Your task to perform on an android device: check battery use Image 0: 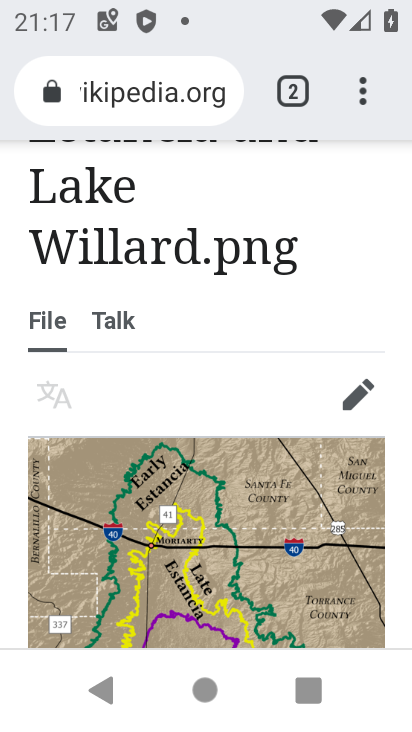
Step 0: press home button
Your task to perform on an android device: check battery use Image 1: 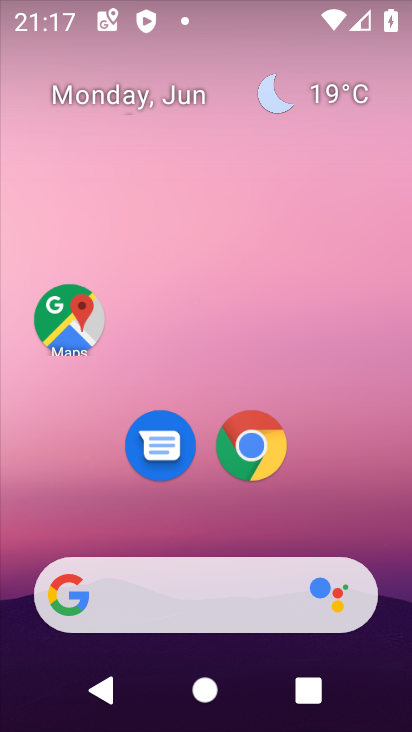
Step 1: drag from (219, 455) to (240, 106)
Your task to perform on an android device: check battery use Image 2: 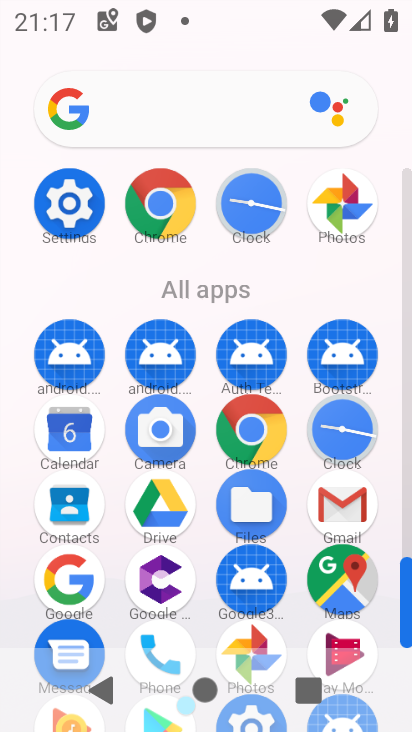
Step 2: click (66, 194)
Your task to perform on an android device: check battery use Image 3: 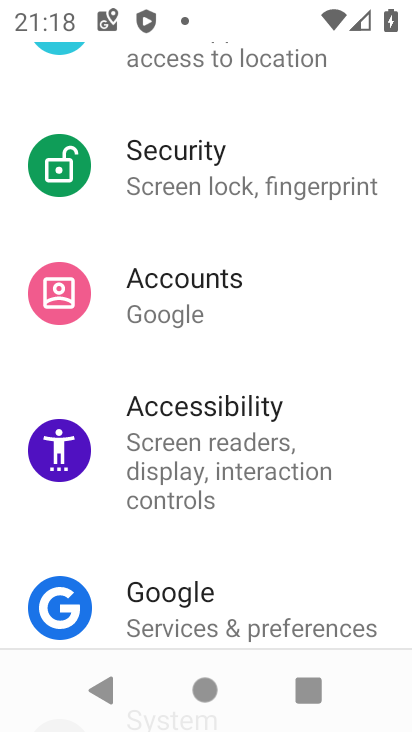
Step 3: click (221, 638)
Your task to perform on an android device: check battery use Image 4: 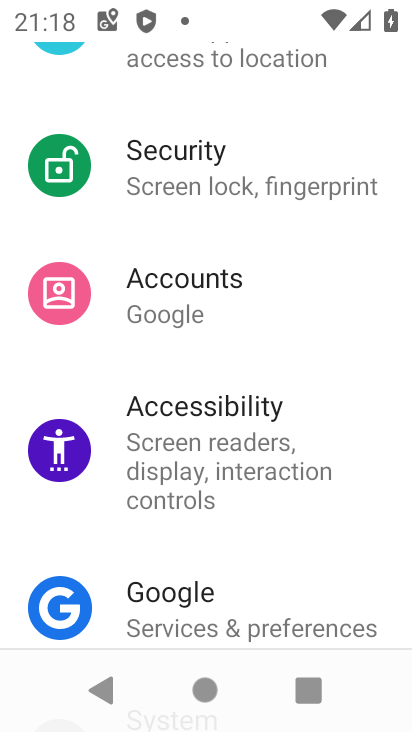
Step 4: drag from (215, 116) to (233, 617)
Your task to perform on an android device: check battery use Image 5: 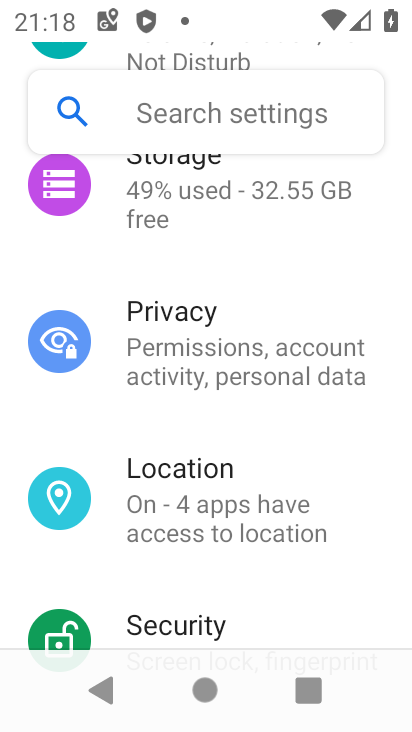
Step 5: drag from (232, 177) to (246, 727)
Your task to perform on an android device: check battery use Image 6: 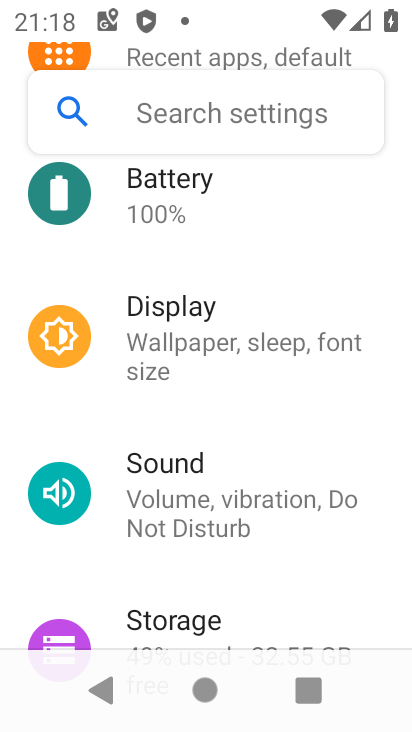
Step 6: click (108, 193)
Your task to perform on an android device: check battery use Image 7: 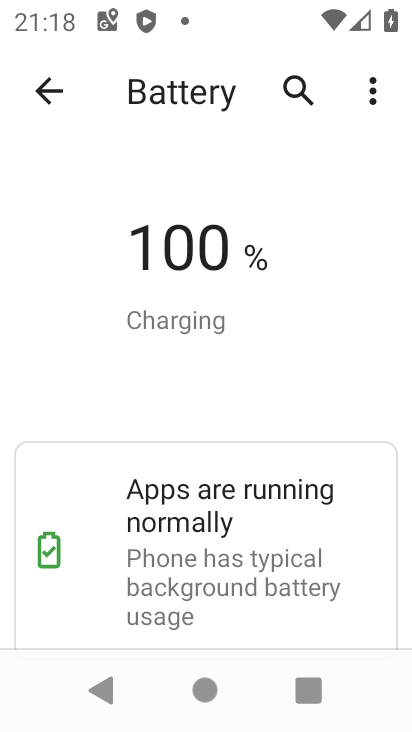
Step 7: drag from (231, 619) to (244, 199)
Your task to perform on an android device: check battery use Image 8: 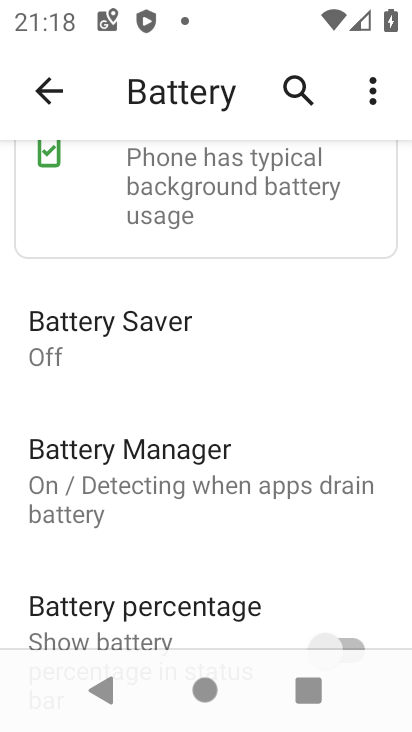
Step 8: click (370, 84)
Your task to perform on an android device: check battery use Image 9: 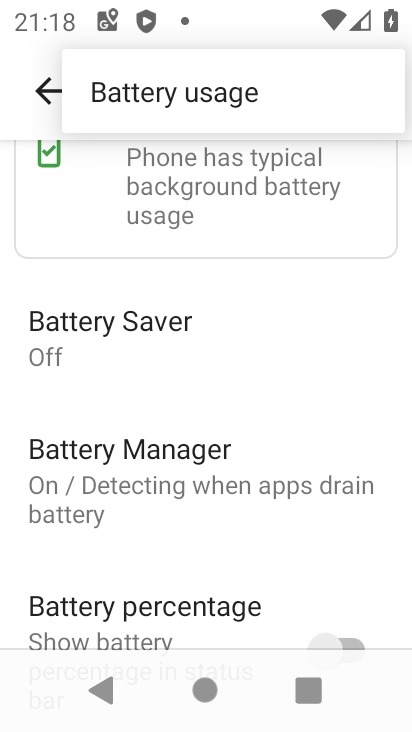
Step 9: click (176, 96)
Your task to perform on an android device: check battery use Image 10: 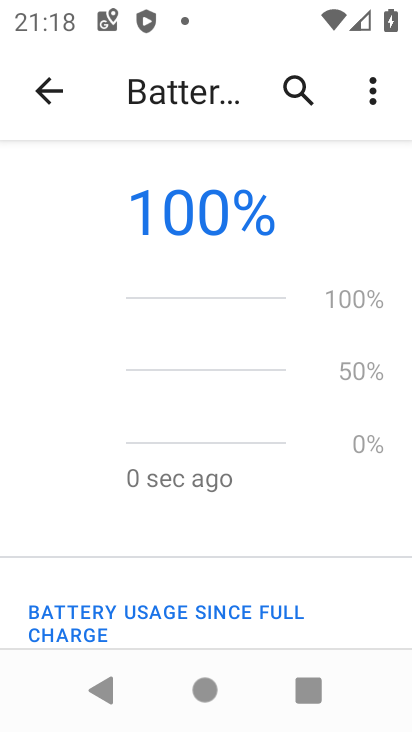
Step 10: click (204, 557)
Your task to perform on an android device: check battery use Image 11: 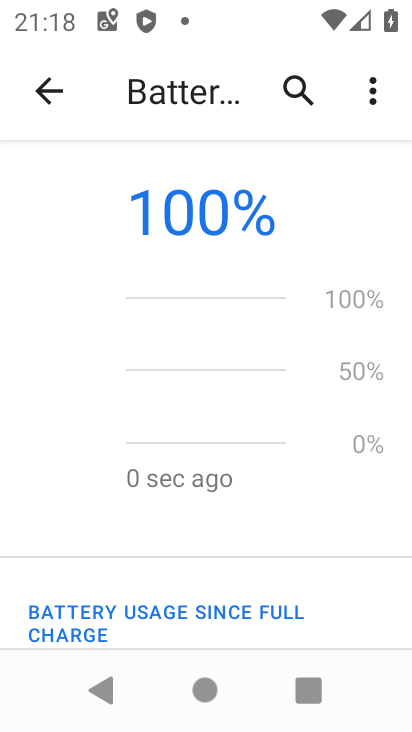
Step 11: task complete